Your task to perform on an android device: stop showing notifications on the lock screen Image 0: 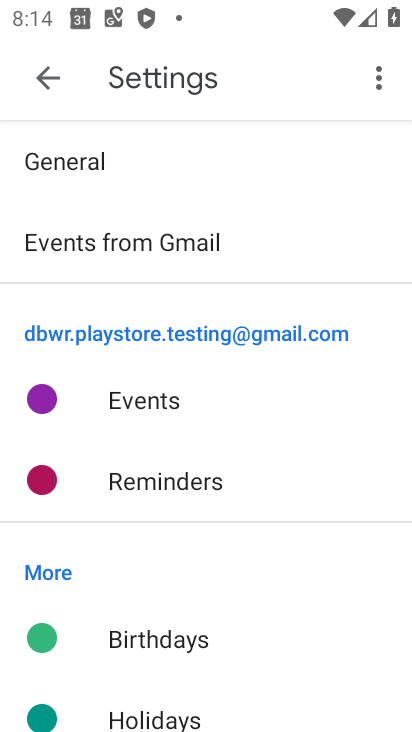
Step 0: press back button
Your task to perform on an android device: stop showing notifications on the lock screen Image 1: 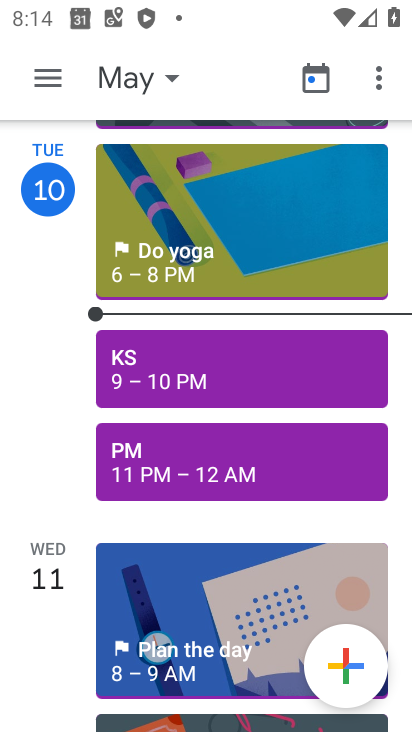
Step 1: press back button
Your task to perform on an android device: stop showing notifications on the lock screen Image 2: 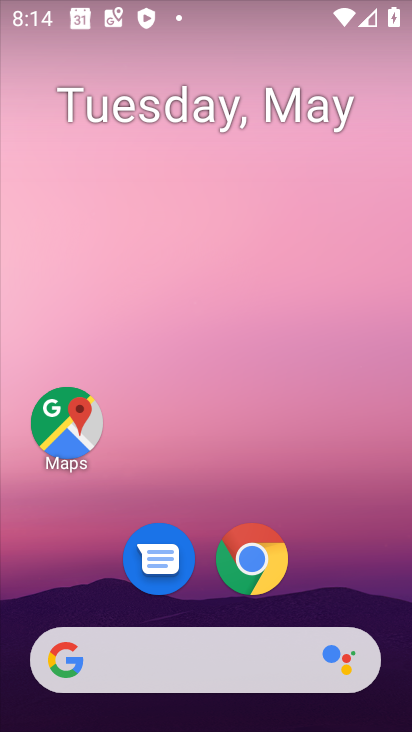
Step 2: drag from (199, 563) to (304, 104)
Your task to perform on an android device: stop showing notifications on the lock screen Image 3: 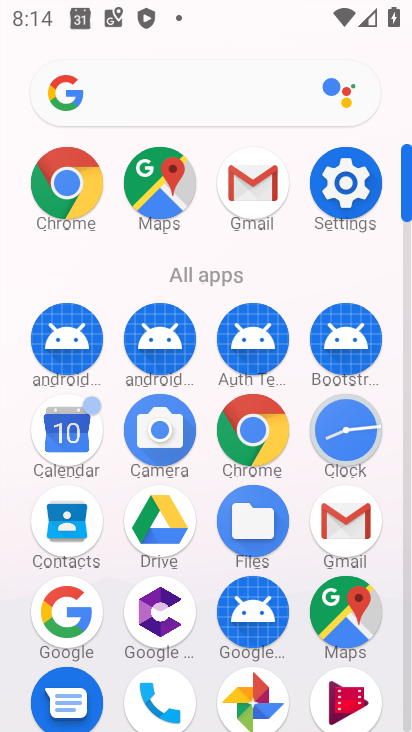
Step 3: click (341, 173)
Your task to perform on an android device: stop showing notifications on the lock screen Image 4: 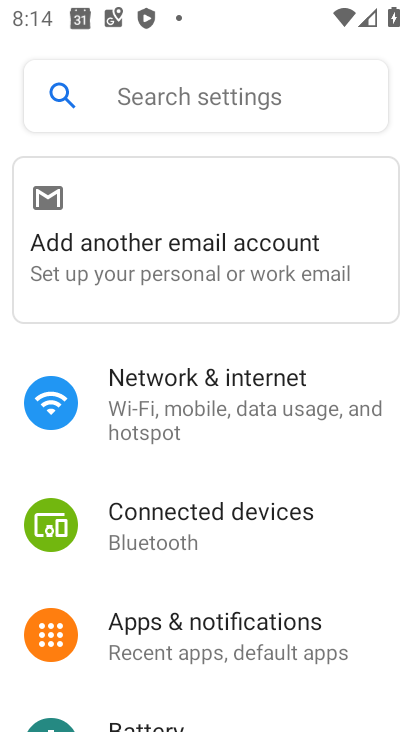
Step 4: click (230, 626)
Your task to perform on an android device: stop showing notifications on the lock screen Image 5: 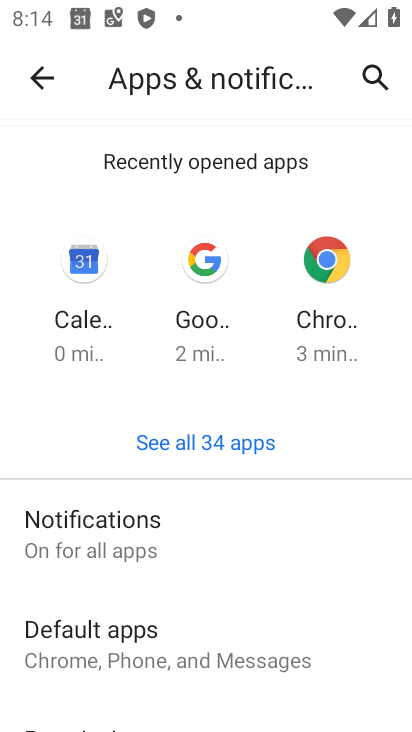
Step 5: click (153, 549)
Your task to perform on an android device: stop showing notifications on the lock screen Image 6: 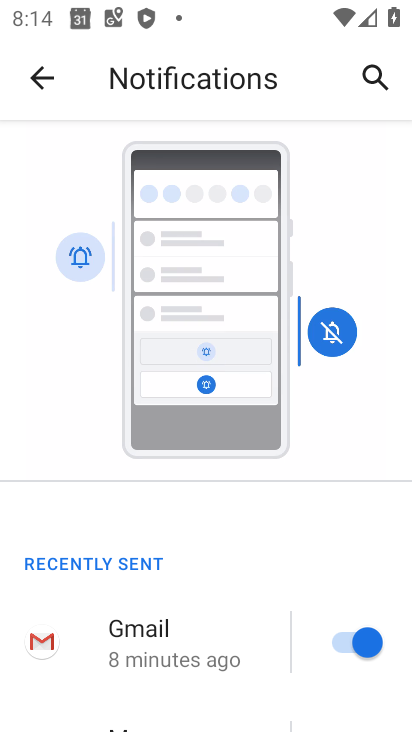
Step 6: drag from (210, 620) to (321, 162)
Your task to perform on an android device: stop showing notifications on the lock screen Image 7: 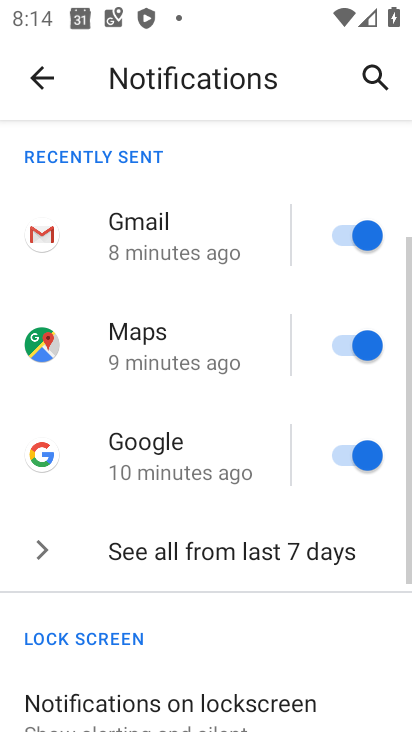
Step 7: drag from (168, 680) to (229, 272)
Your task to perform on an android device: stop showing notifications on the lock screen Image 8: 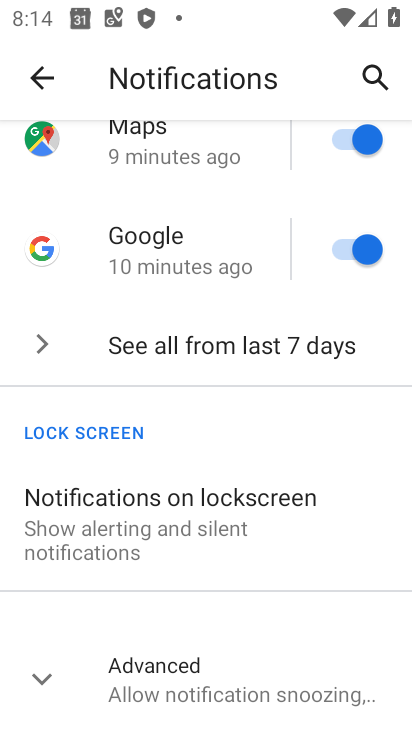
Step 8: click (164, 496)
Your task to perform on an android device: stop showing notifications on the lock screen Image 9: 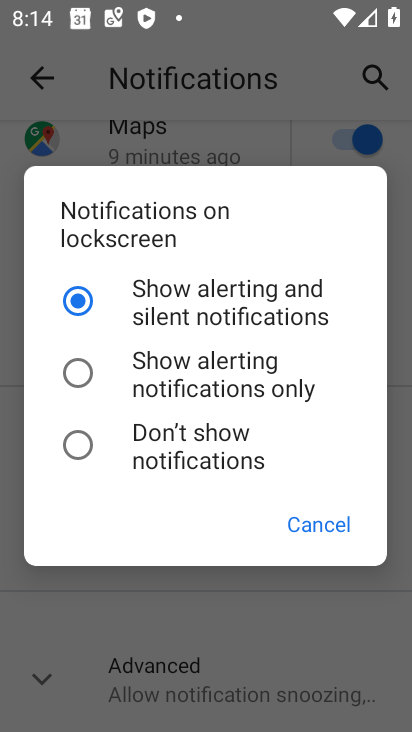
Step 9: click (84, 449)
Your task to perform on an android device: stop showing notifications on the lock screen Image 10: 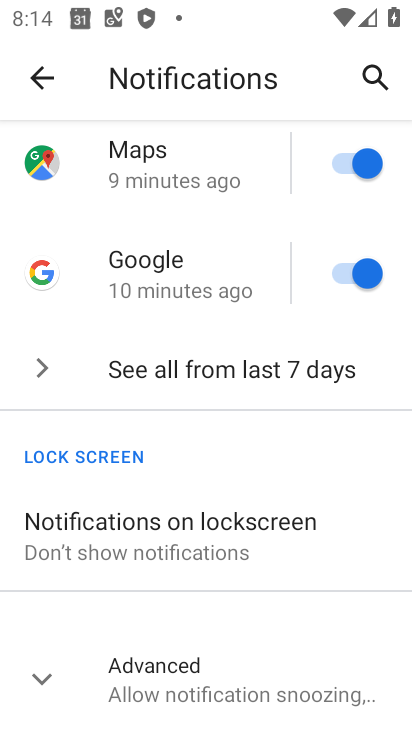
Step 10: task complete